Your task to perform on an android device: clear all cookies in the chrome app Image 0: 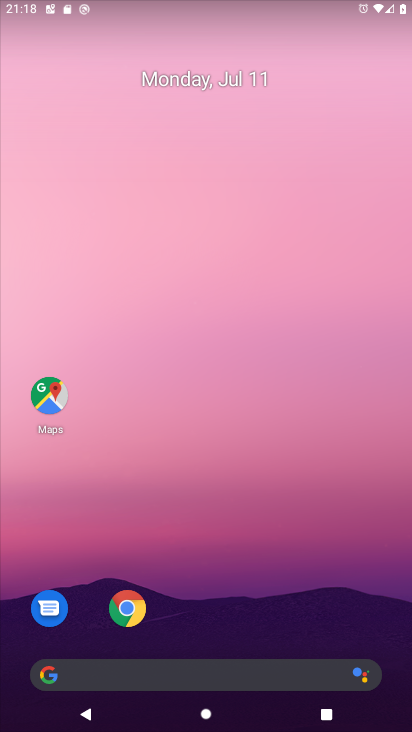
Step 0: click (288, 629)
Your task to perform on an android device: clear all cookies in the chrome app Image 1: 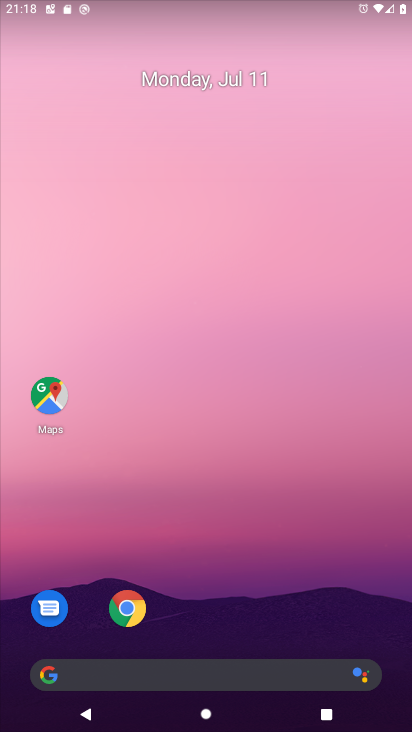
Step 1: click (117, 610)
Your task to perform on an android device: clear all cookies in the chrome app Image 2: 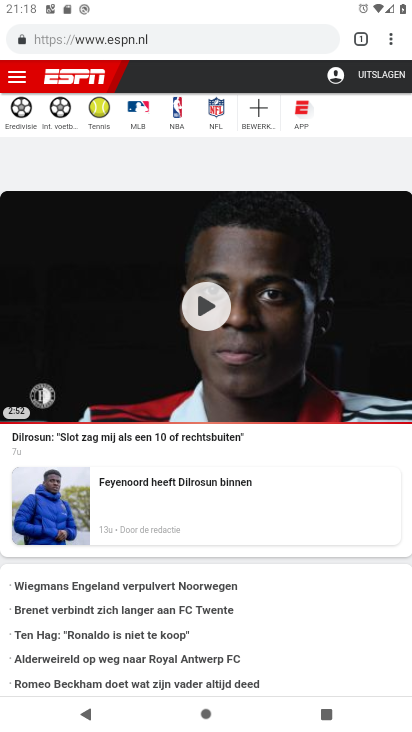
Step 2: click (384, 37)
Your task to perform on an android device: clear all cookies in the chrome app Image 3: 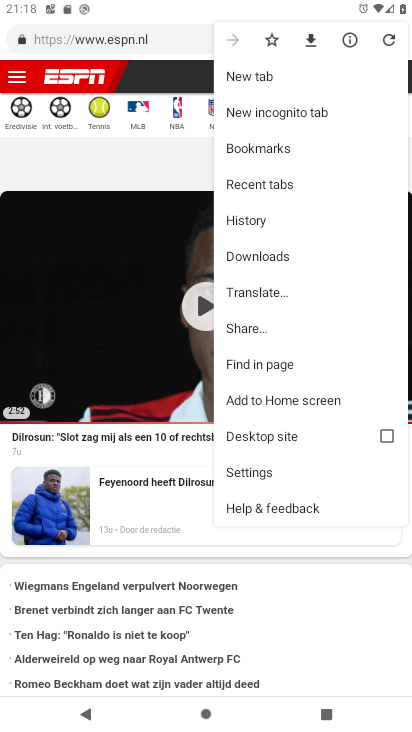
Step 3: click (270, 481)
Your task to perform on an android device: clear all cookies in the chrome app Image 4: 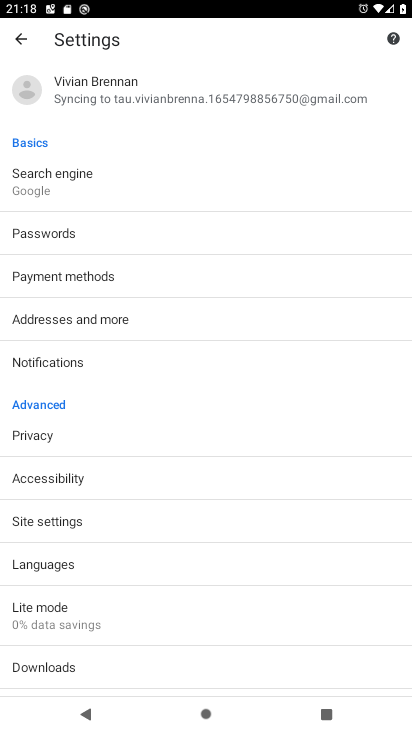
Step 4: click (21, 40)
Your task to perform on an android device: clear all cookies in the chrome app Image 5: 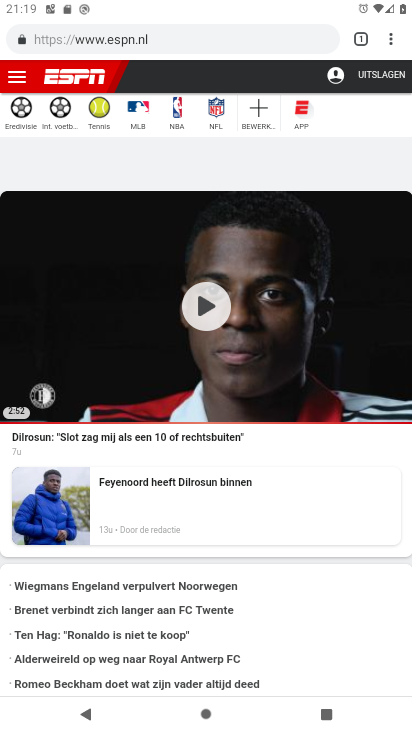
Step 5: click (382, 55)
Your task to perform on an android device: clear all cookies in the chrome app Image 6: 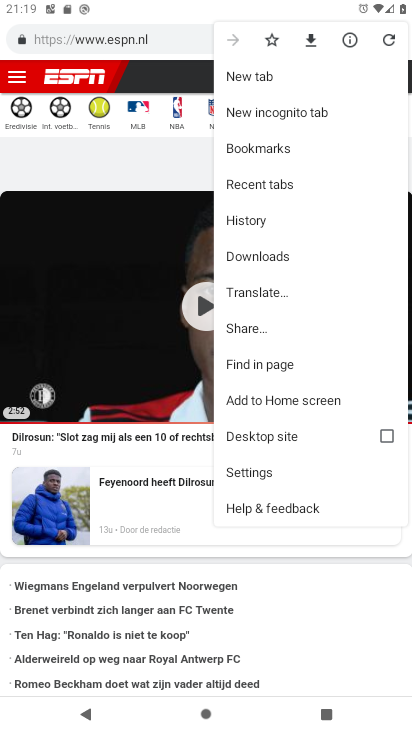
Step 6: click (273, 213)
Your task to perform on an android device: clear all cookies in the chrome app Image 7: 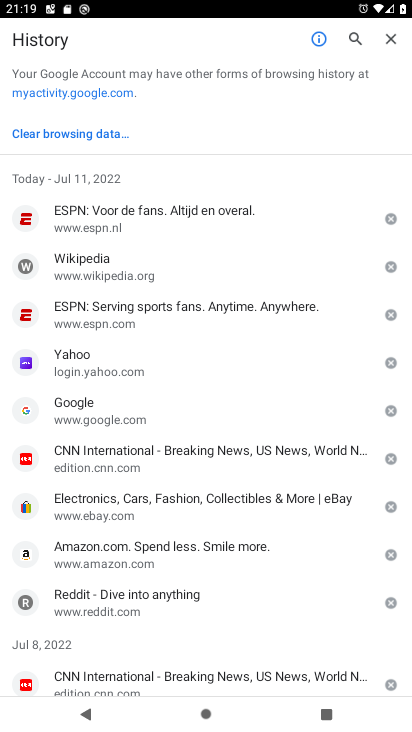
Step 7: click (109, 136)
Your task to perform on an android device: clear all cookies in the chrome app Image 8: 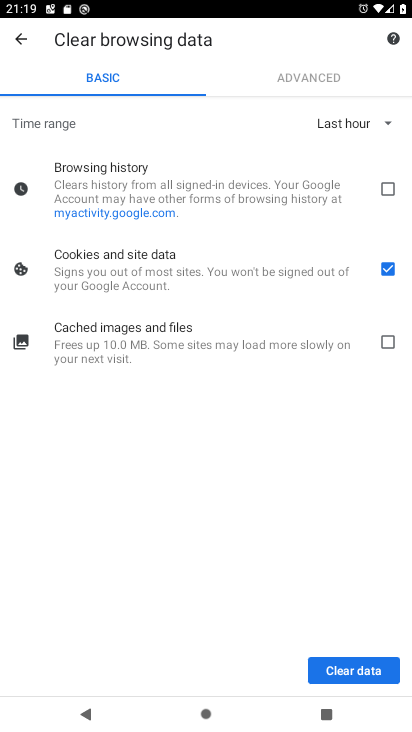
Step 8: click (387, 664)
Your task to perform on an android device: clear all cookies in the chrome app Image 9: 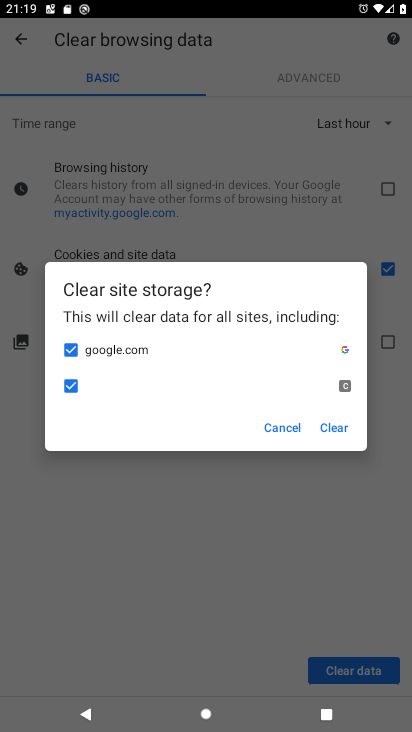
Step 9: click (326, 430)
Your task to perform on an android device: clear all cookies in the chrome app Image 10: 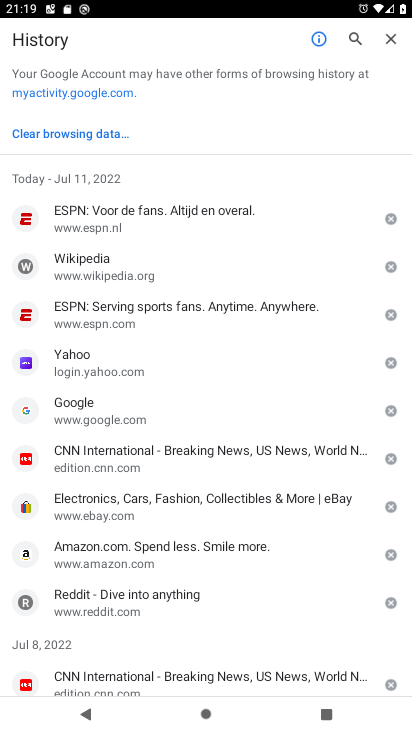
Step 10: click (131, 138)
Your task to perform on an android device: clear all cookies in the chrome app Image 11: 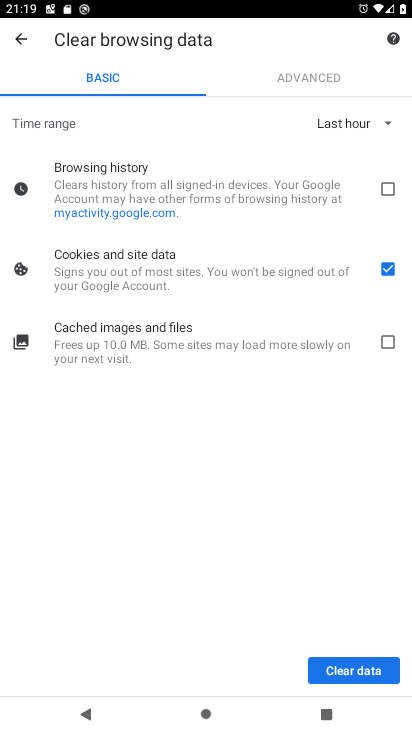
Step 11: click (371, 661)
Your task to perform on an android device: clear all cookies in the chrome app Image 12: 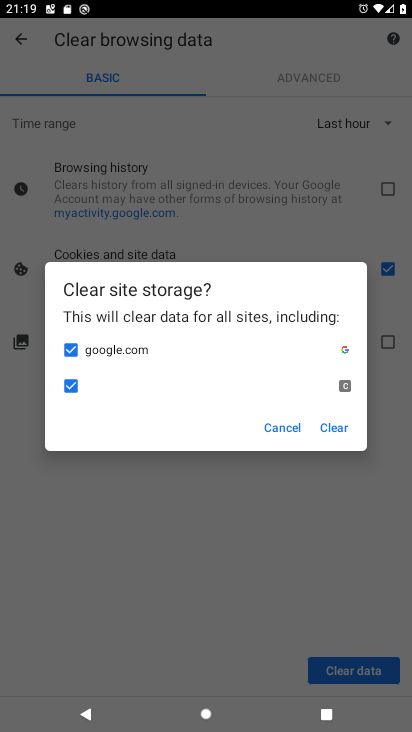
Step 12: click (338, 431)
Your task to perform on an android device: clear all cookies in the chrome app Image 13: 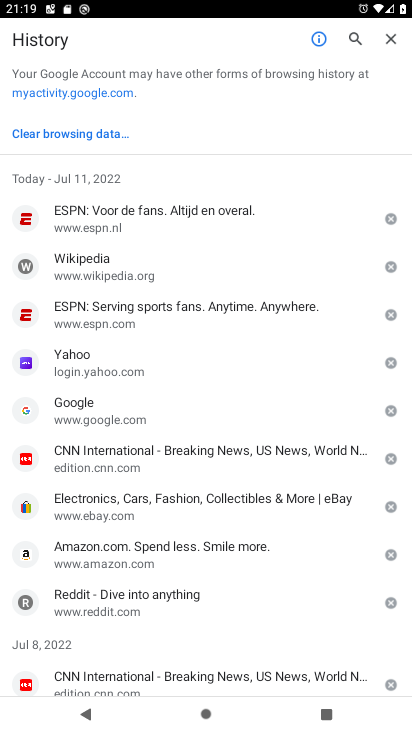
Step 13: task complete